Your task to perform on an android device: delete the emails in spam in the gmail app Image 0: 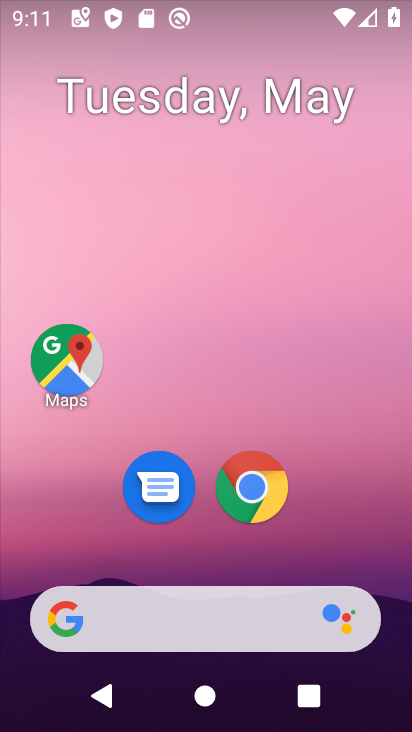
Step 0: drag from (366, 562) to (359, 182)
Your task to perform on an android device: delete the emails in spam in the gmail app Image 1: 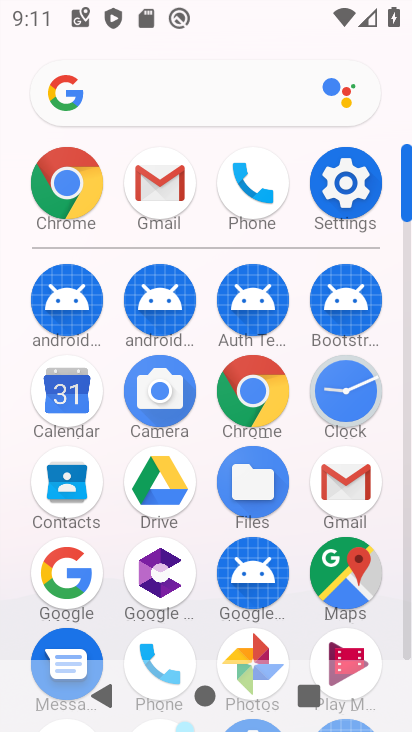
Step 1: click (370, 502)
Your task to perform on an android device: delete the emails in spam in the gmail app Image 2: 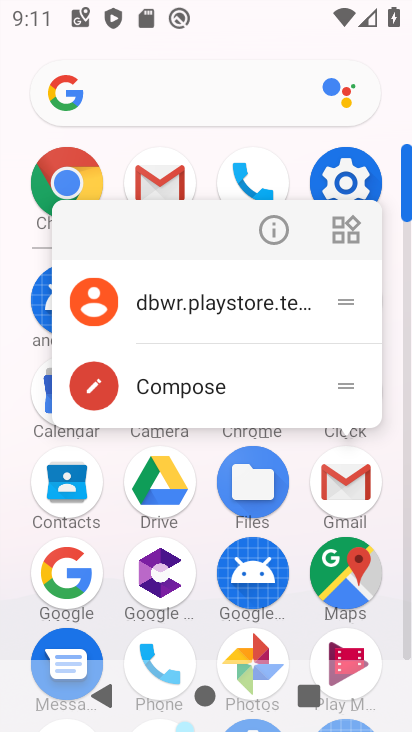
Step 2: click (366, 493)
Your task to perform on an android device: delete the emails in spam in the gmail app Image 3: 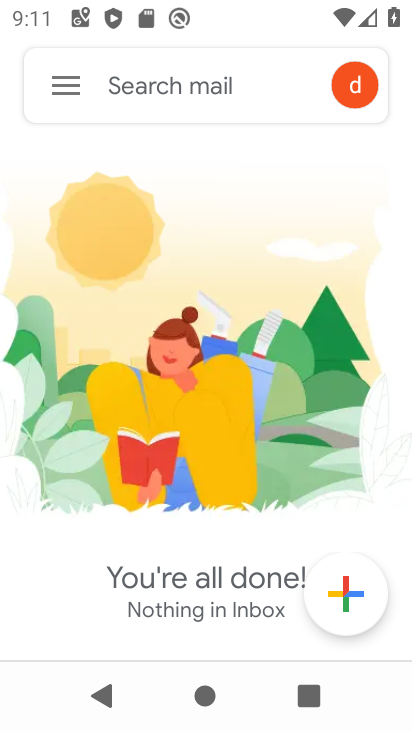
Step 3: click (71, 83)
Your task to perform on an android device: delete the emails in spam in the gmail app Image 4: 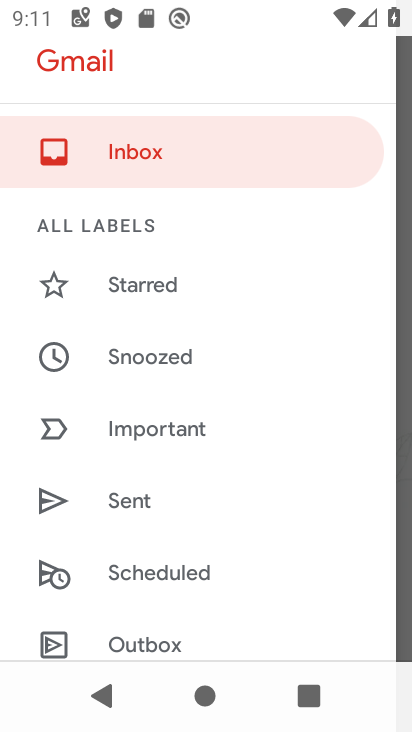
Step 4: drag from (280, 416) to (307, 326)
Your task to perform on an android device: delete the emails in spam in the gmail app Image 5: 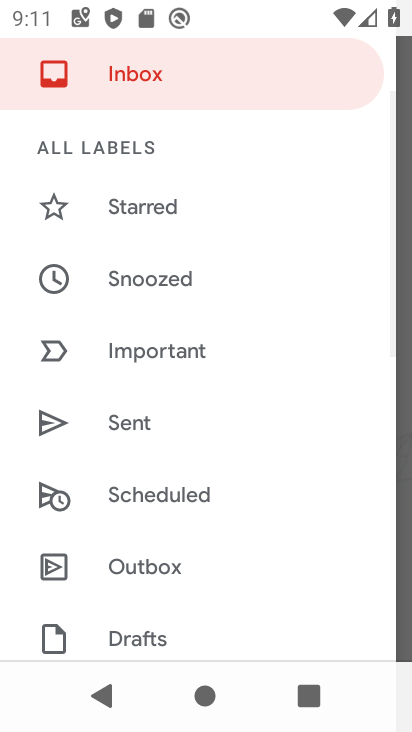
Step 5: drag from (320, 454) to (322, 369)
Your task to perform on an android device: delete the emails in spam in the gmail app Image 6: 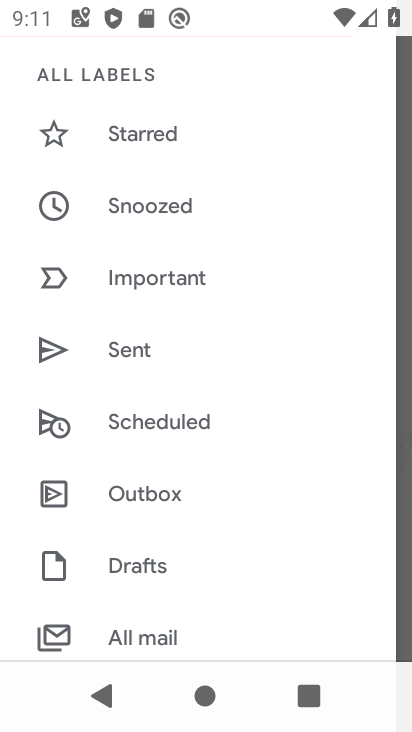
Step 6: drag from (331, 491) to (323, 401)
Your task to perform on an android device: delete the emails in spam in the gmail app Image 7: 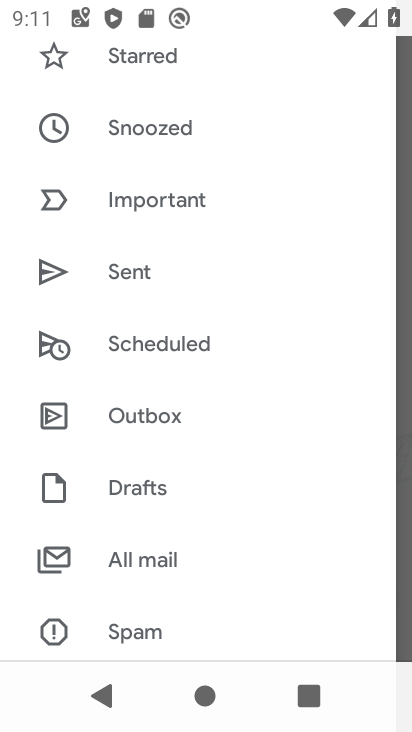
Step 7: drag from (327, 515) to (329, 416)
Your task to perform on an android device: delete the emails in spam in the gmail app Image 8: 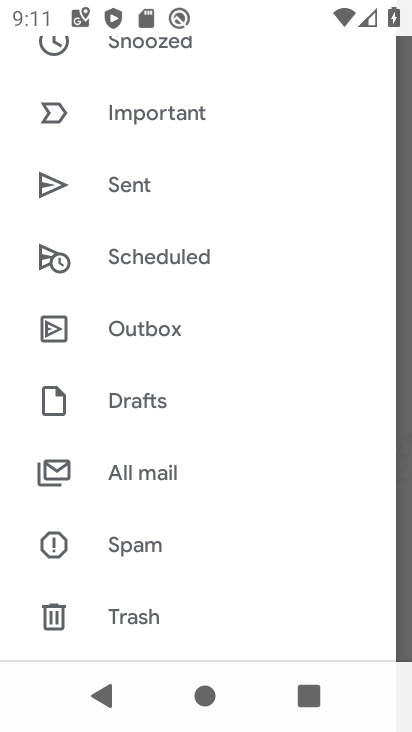
Step 8: drag from (308, 537) to (322, 421)
Your task to perform on an android device: delete the emails in spam in the gmail app Image 9: 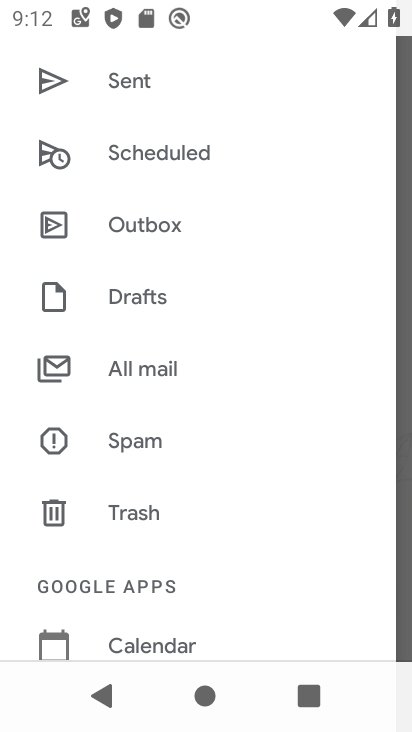
Step 9: drag from (307, 539) to (311, 427)
Your task to perform on an android device: delete the emails in spam in the gmail app Image 10: 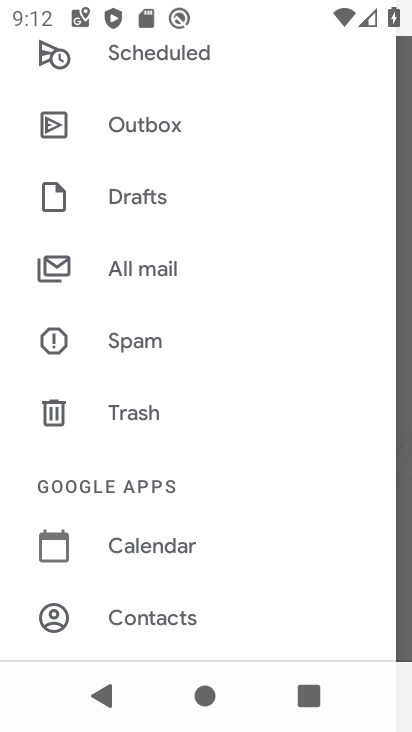
Step 10: click (179, 350)
Your task to perform on an android device: delete the emails in spam in the gmail app Image 11: 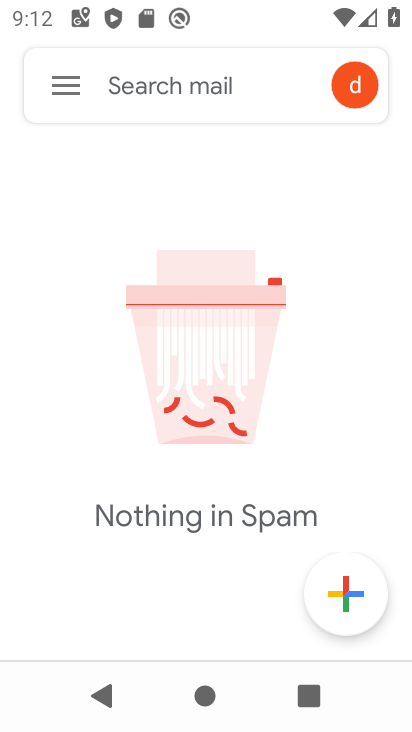
Step 11: task complete